Your task to perform on an android device: turn off sleep mode Image 0: 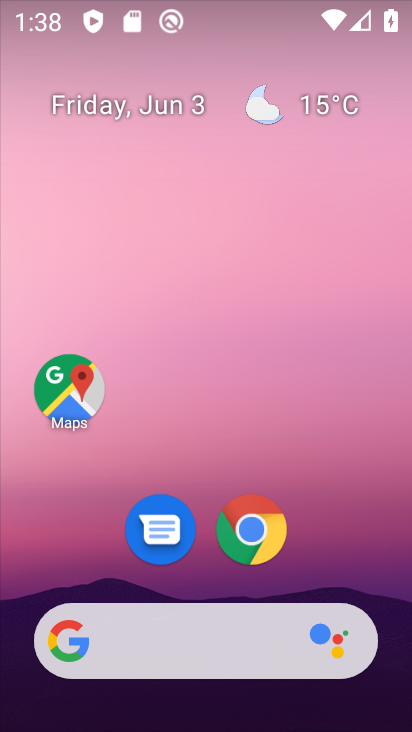
Step 0: drag from (378, 562) to (360, 171)
Your task to perform on an android device: turn off sleep mode Image 1: 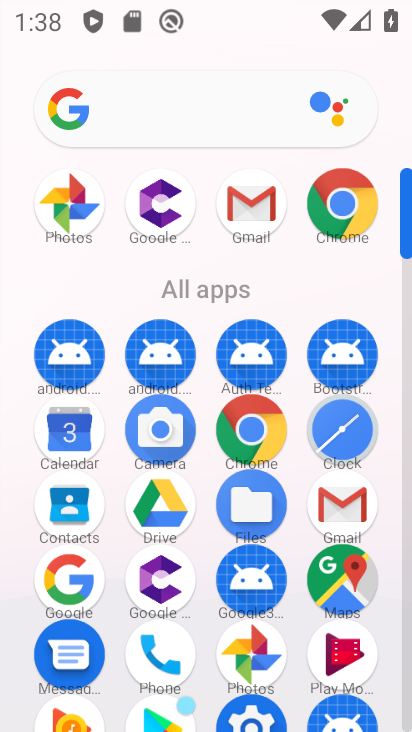
Step 1: drag from (293, 451) to (293, 244)
Your task to perform on an android device: turn off sleep mode Image 2: 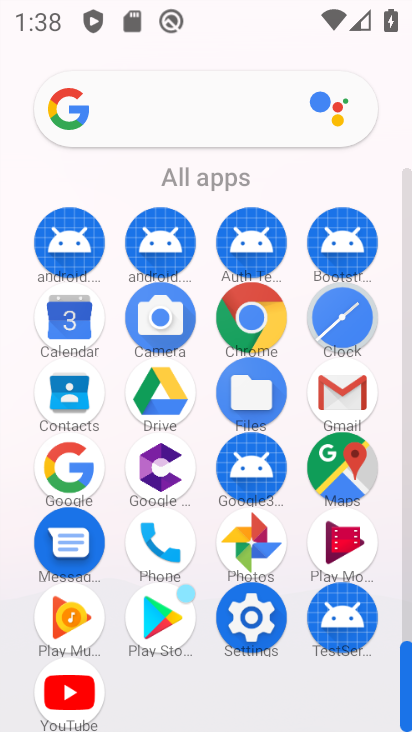
Step 2: click (252, 614)
Your task to perform on an android device: turn off sleep mode Image 3: 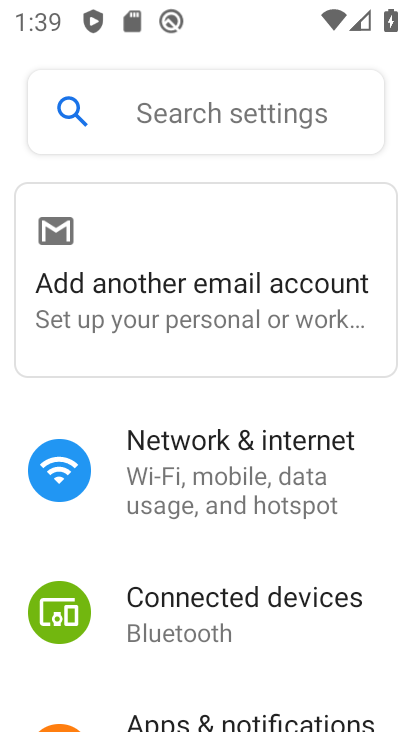
Step 3: drag from (374, 544) to (378, 390)
Your task to perform on an android device: turn off sleep mode Image 4: 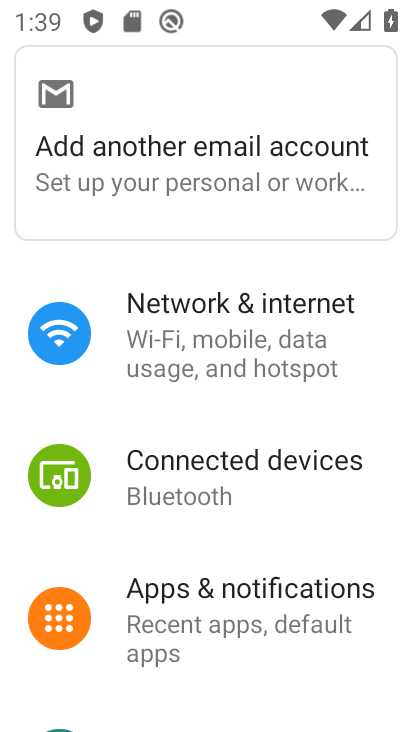
Step 4: drag from (370, 653) to (367, 417)
Your task to perform on an android device: turn off sleep mode Image 5: 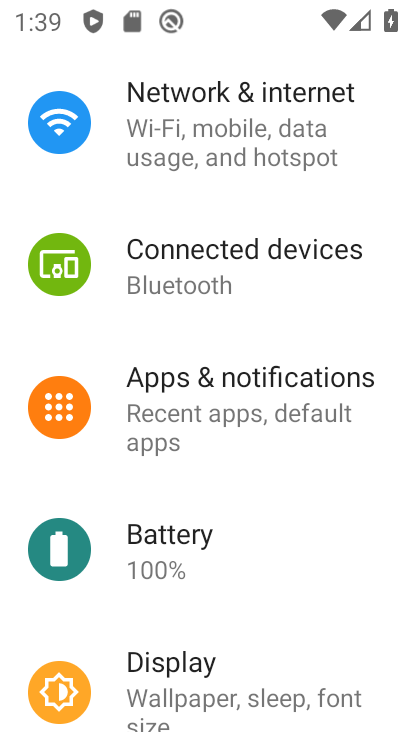
Step 5: drag from (335, 598) to (338, 402)
Your task to perform on an android device: turn off sleep mode Image 6: 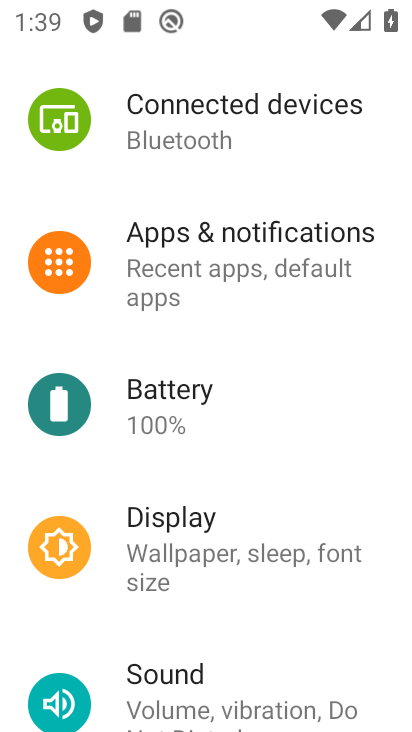
Step 6: click (330, 557)
Your task to perform on an android device: turn off sleep mode Image 7: 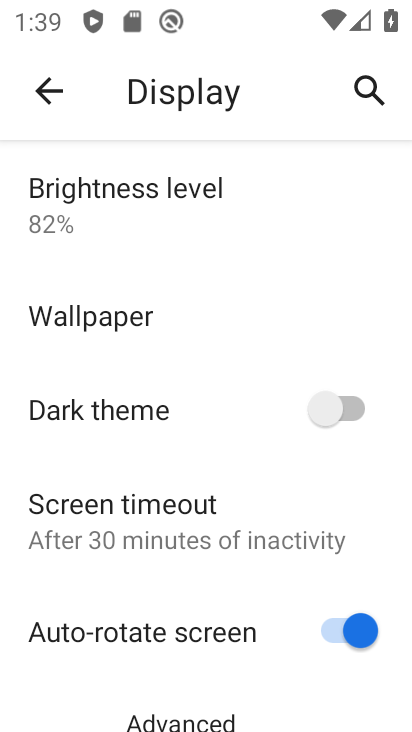
Step 7: drag from (288, 595) to (289, 368)
Your task to perform on an android device: turn off sleep mode Image 8: 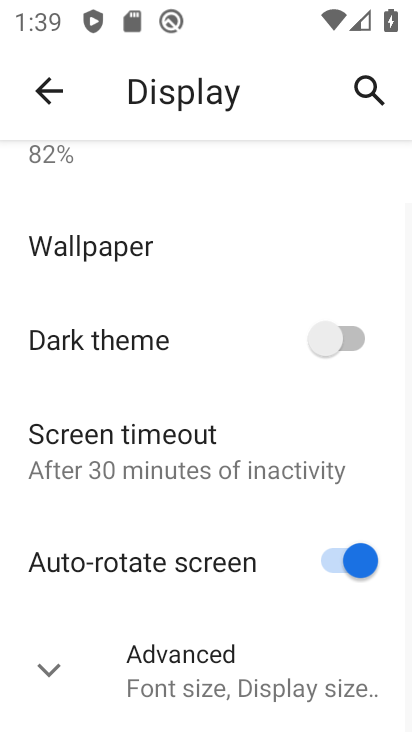
Step 8: click (282, 659)
Your task to perform on an android device: turn off sleep mode Image 9: 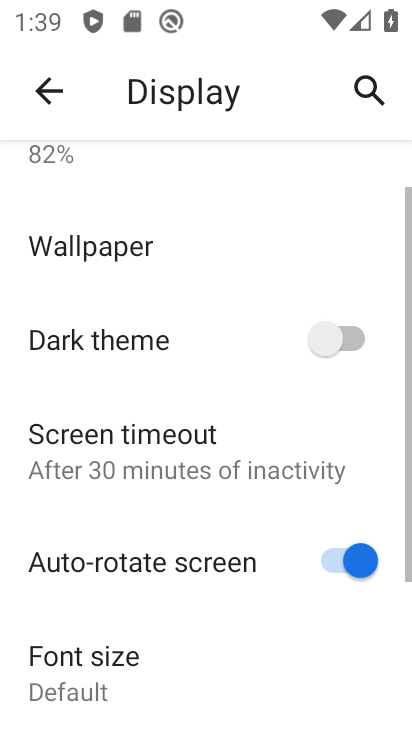
Step 9: task complete